Your task to perform on an android device: Is it going to rain this weekend? Image 0: 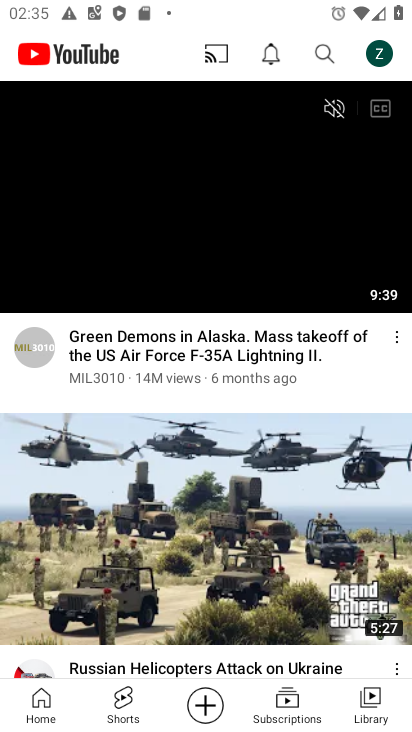
Step 0: press home button
Your task to perform on an android device: Is it going to rain this weekend? Image 1: 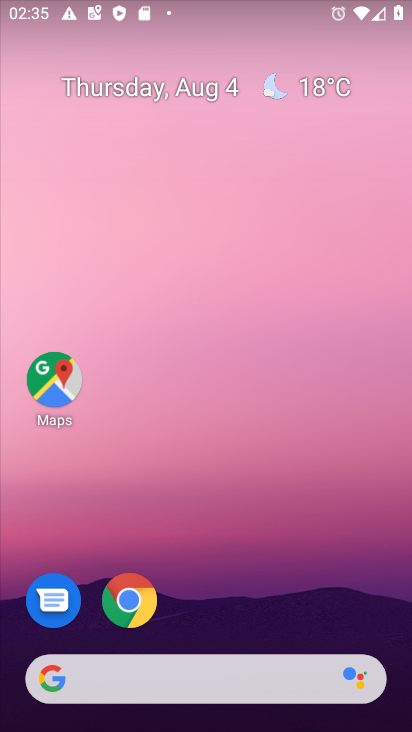
Step 1: click (148, 676)
Your task to perform on an android device: Is it going to rain this weekend? Image 2: 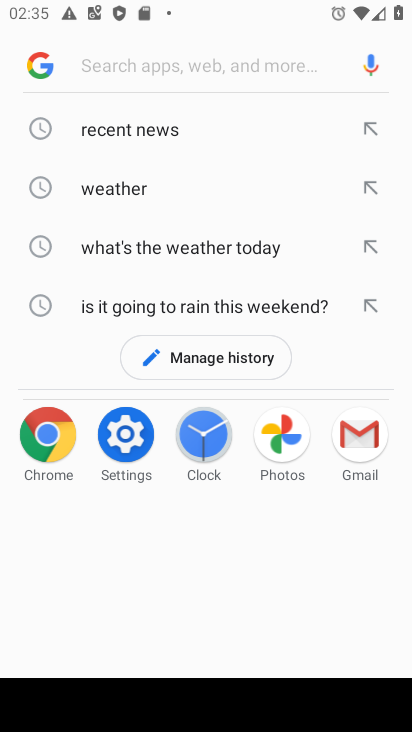
Step 2: click (129, 191)
Your task to perform on an android device: Is it going to rain this weekend? Image 3: 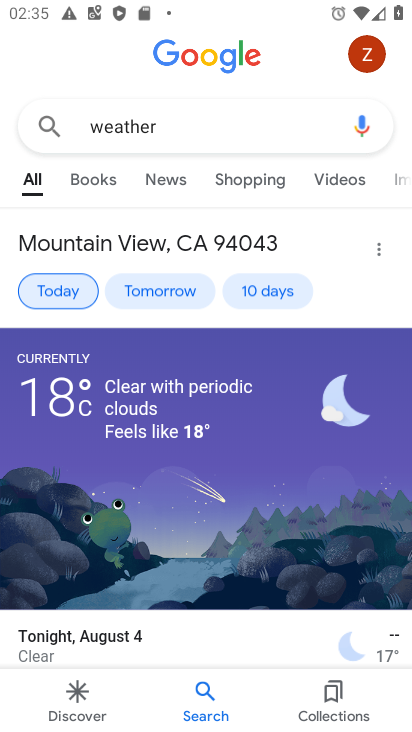
Step 3: click (255, 292)
Your task to perform on an android device: Is it going to rain this weekend? Image 4: 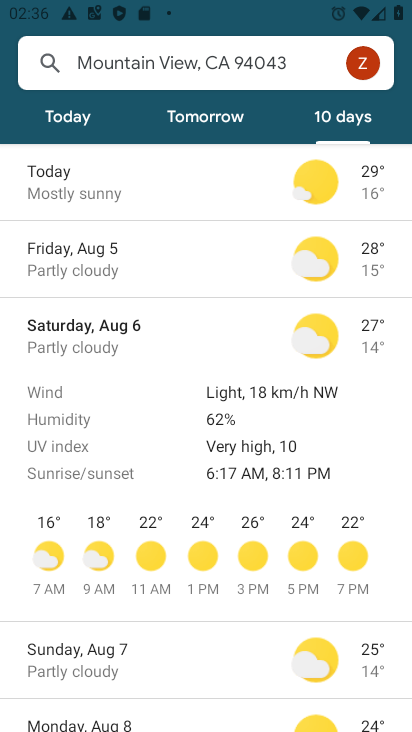
Step 4: task complete